Your task to perform on an android device: Check the news Image 0: 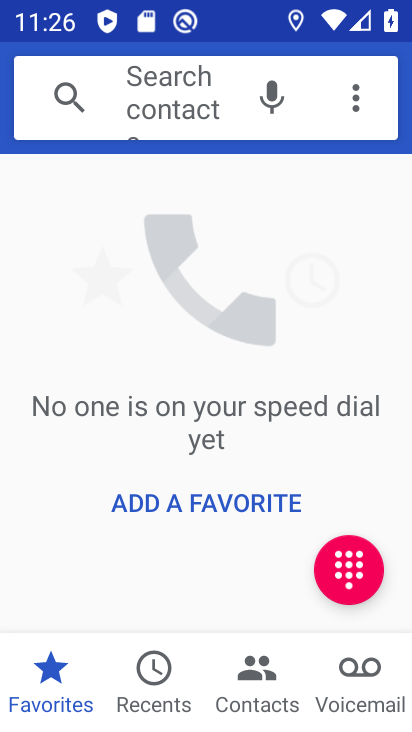
Step 0: press home button
Your task to perform on an android device: Check the news Image 1: 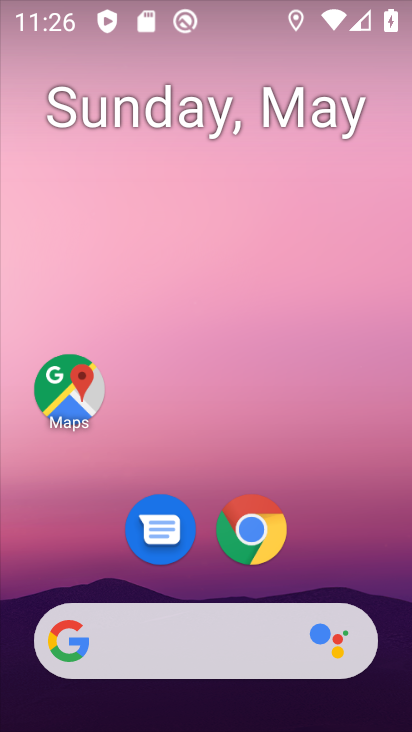
Step 1: drag from (282, 632) to (298, 5)
Your task to perform on an android device: Check the news Image 2: 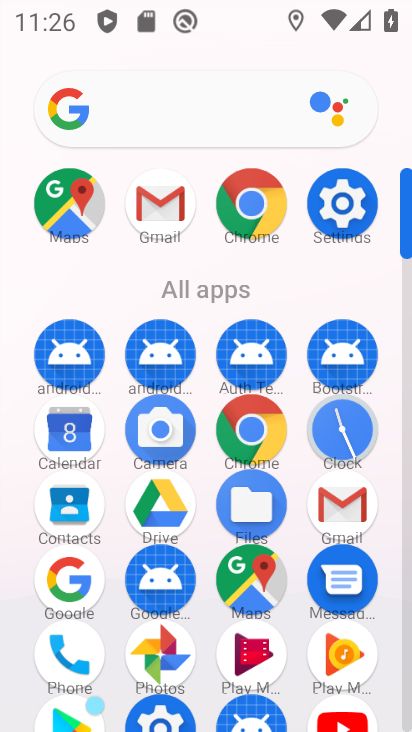
Step 2: click (247, 417)
Your task to perform on an android device: Check the news Image 3: 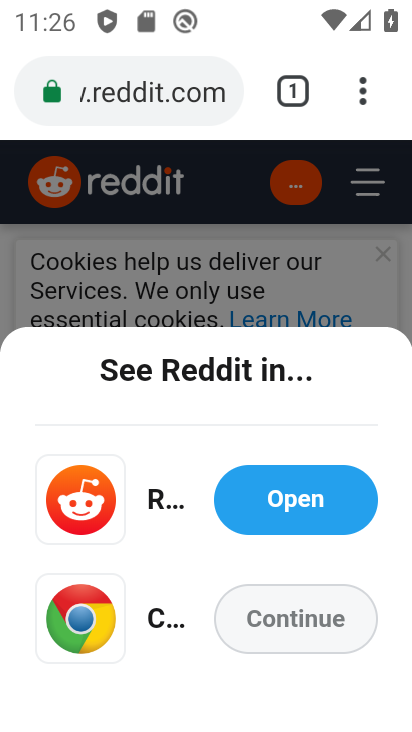
Step 3: click (129, 79)
Your task to perform on an android device: Check the news Image 4: 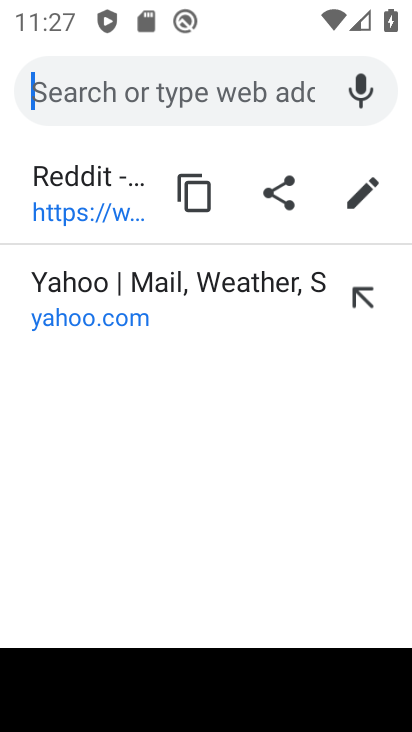
Step 4: type "check the news"
Your task to perform on an android device: Check the news Image 5: 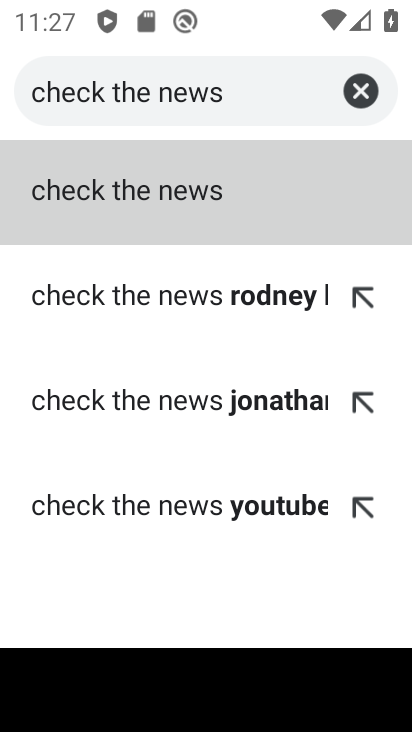
Step 5: click (228, 183)
Your task to perform on an android device: Check the news Image 6: 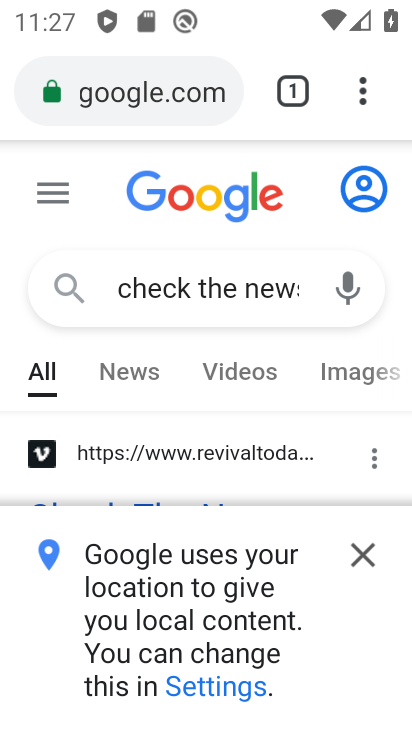
Step 6: click (365, 554)
Your task to perform on an android device: Check the news Image 7: 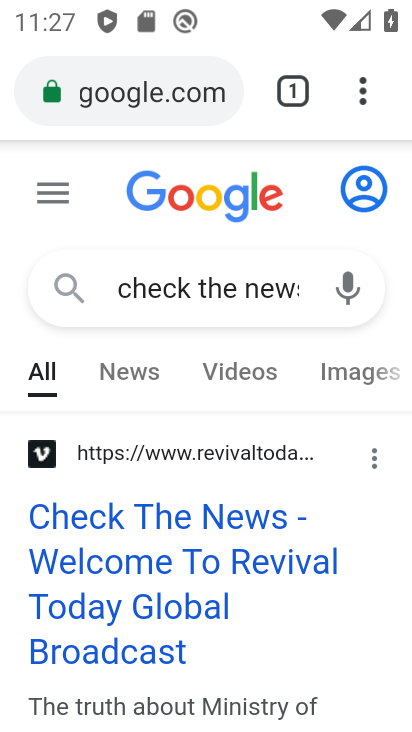
Step 7: task complete